Your task to perform on an android device: open a bookmark in the chrome app Image 0: 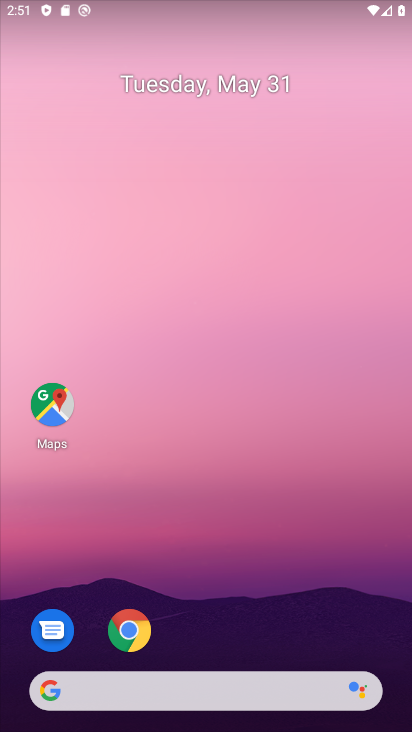
Step 0: click (129, 639)
Your task to perform on an android device: open a bookmark in the chrome app Image 1: 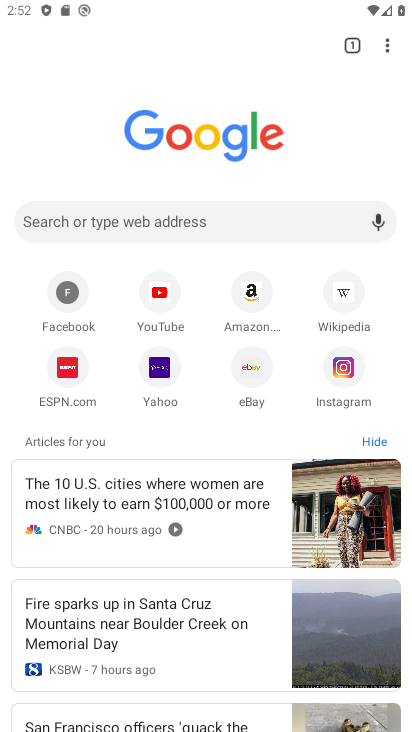
Step 1: click (399, 51)
Your task to perform on an android device: open a bookmark in the chrome app Image 2: 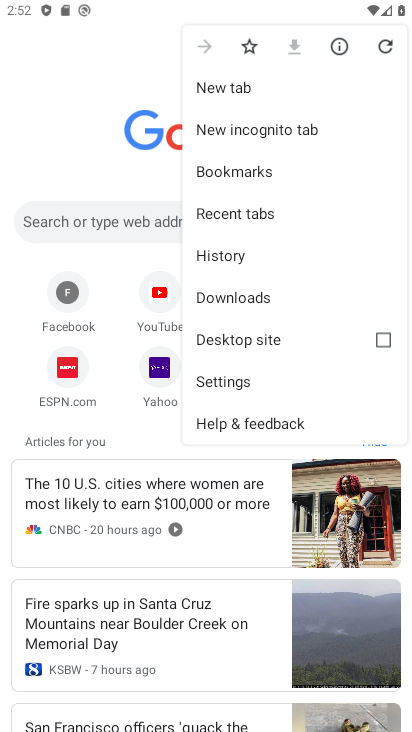
Step 2: click (394, 48)
Your task to perform on an android device: open a bookmark in the chrome app Image 3: 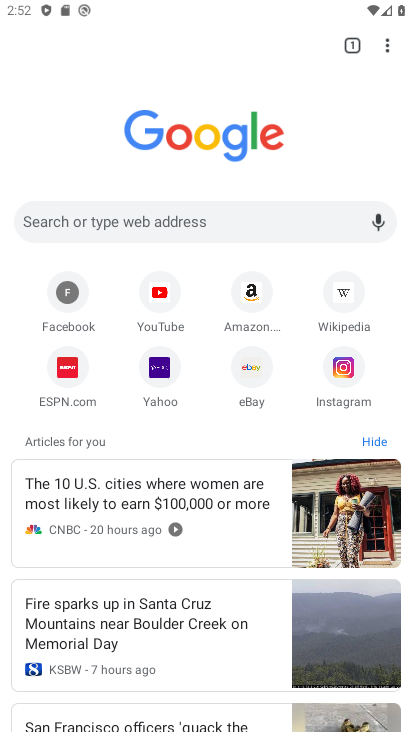
Step 3: click (394, 47)
Your task to perform on an android device: open a bookmark in the chrome app Image 4: 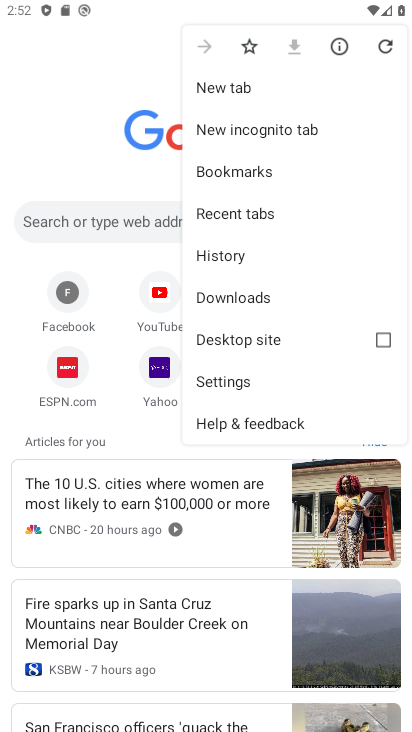
Step 4: click (237, 181)
Your task to perform on an android device: open a bookmark in the chrome app Image 5: 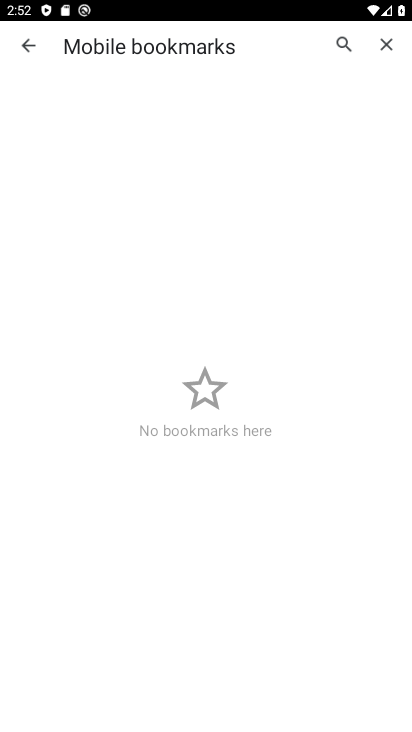
Step 5: task complete